Your task to perform on an android device: Toggle the flashlight Image 0: 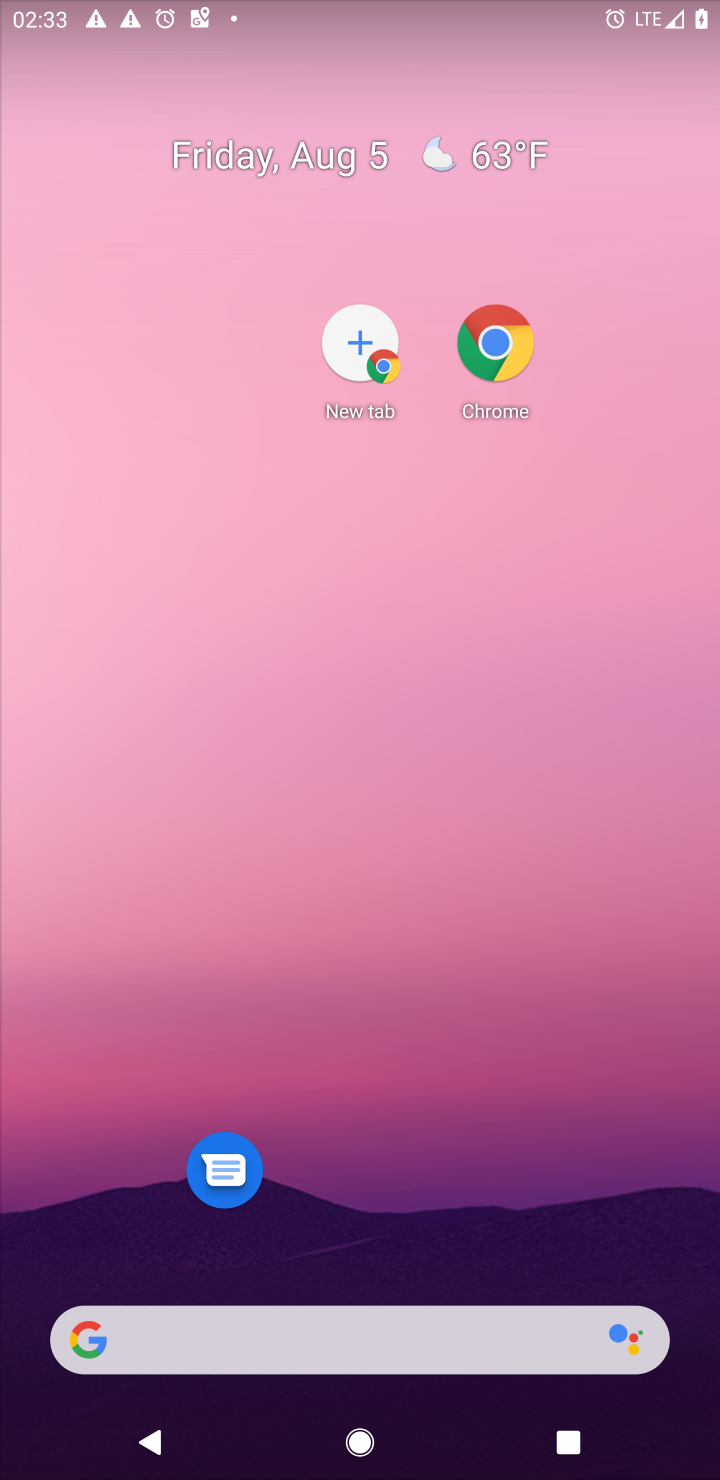
Step 0: drag from (420, 1097) to (375, 110)
Your task to perform on an android device: Toggle the flashlight Image 1: 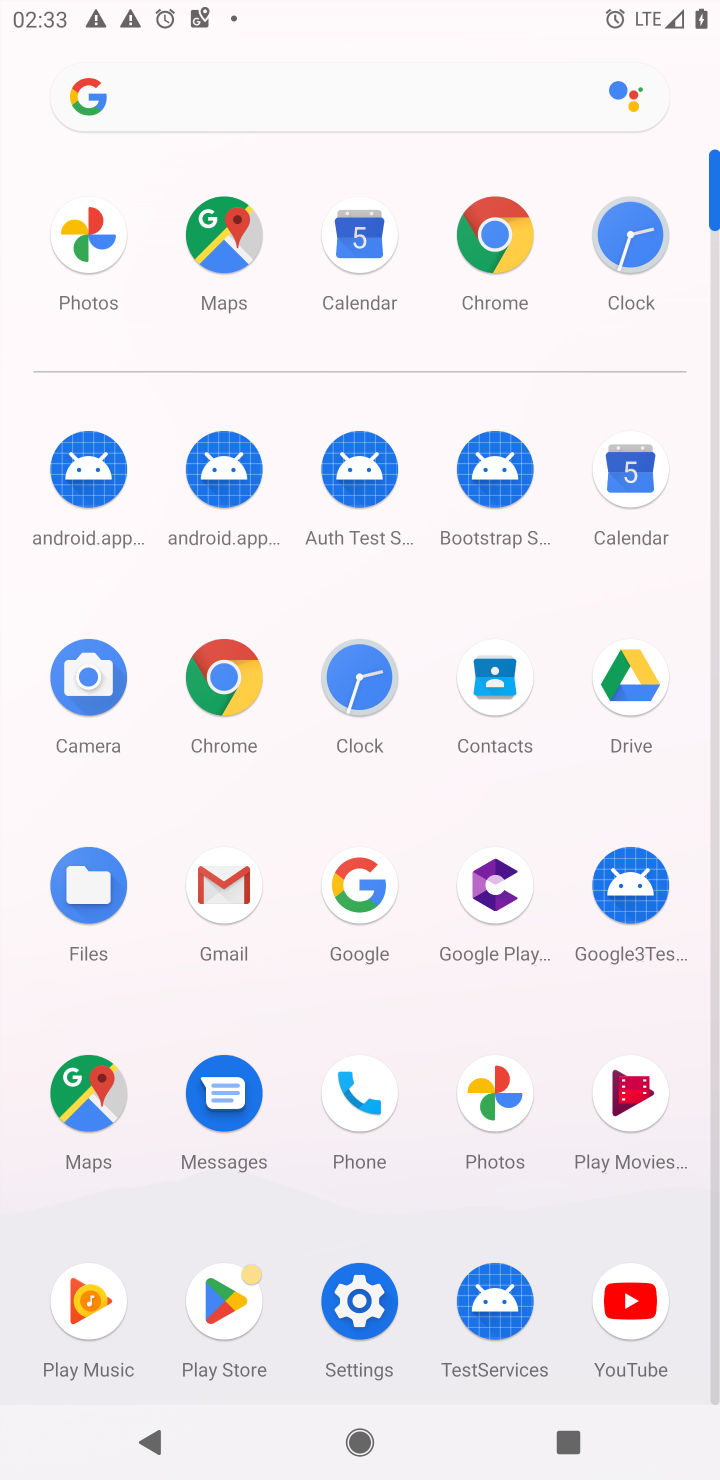
Step 1: click (373, 1323)
Your task to perform on an android device: Toggle the flashlight Image 2: 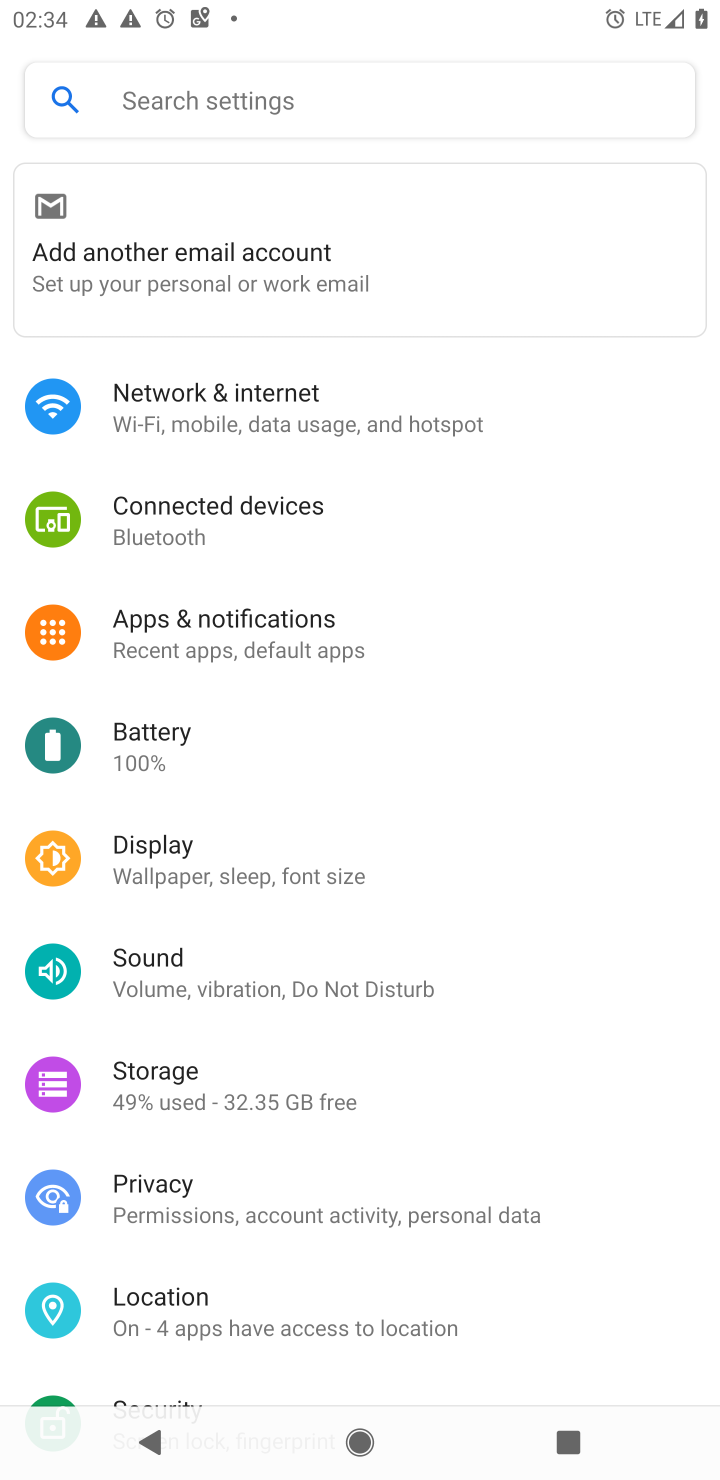
Step 2: task complete